Your task to perform on an android device: Open the map Image 0: 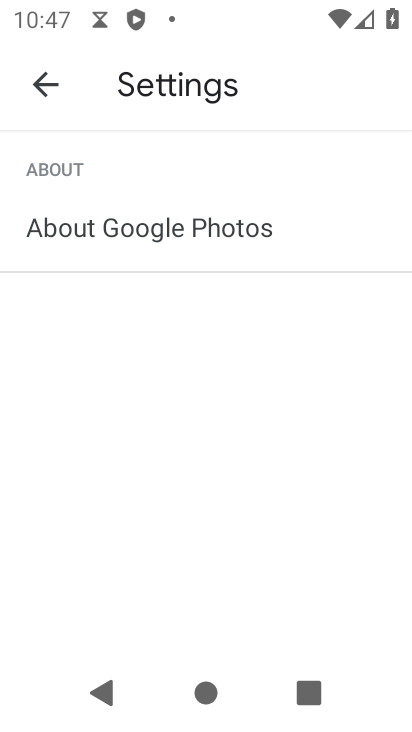
Step 0: press home button
Your task to perform on an android device: Open the map Image 1: 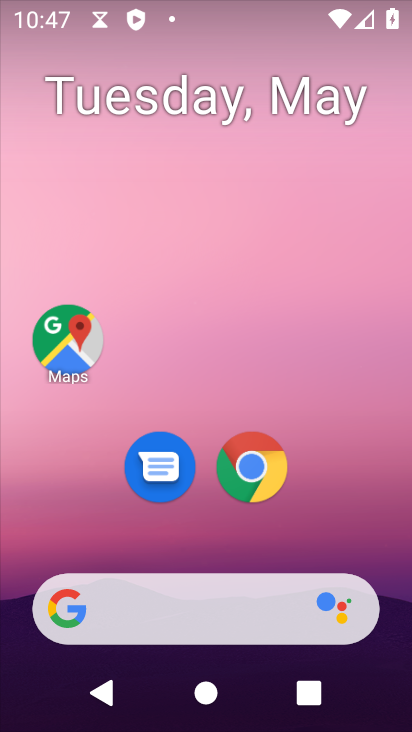
Step 1: click (64, 342)
Your task to perform on an android device: Open the map Image 2: 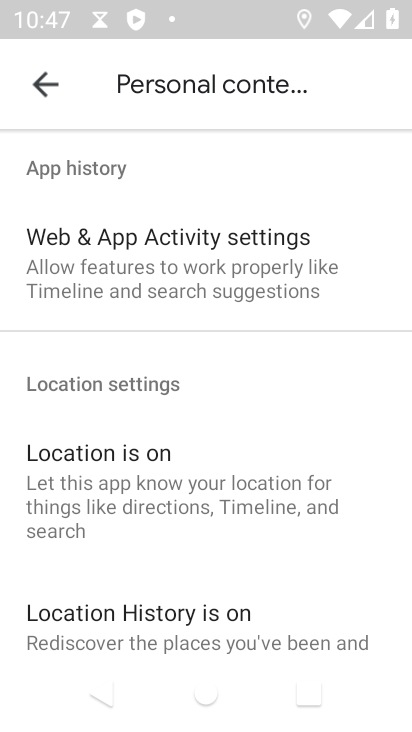
Step 2: click (45, 88)
Your task to perform on an android device: Open the map Image 3: 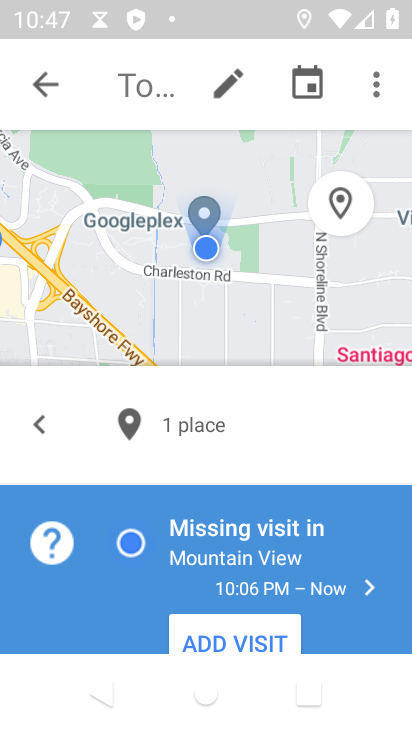
Step 3: click (45, 88)
Your task to perform on an android device: Open the map Image 4: 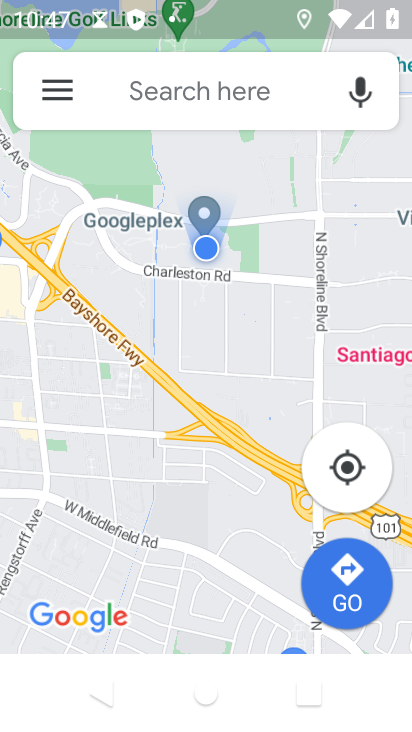
Step 4: task complete